Your task to perform on an android device: change notification settings in the gmail app Image 0: 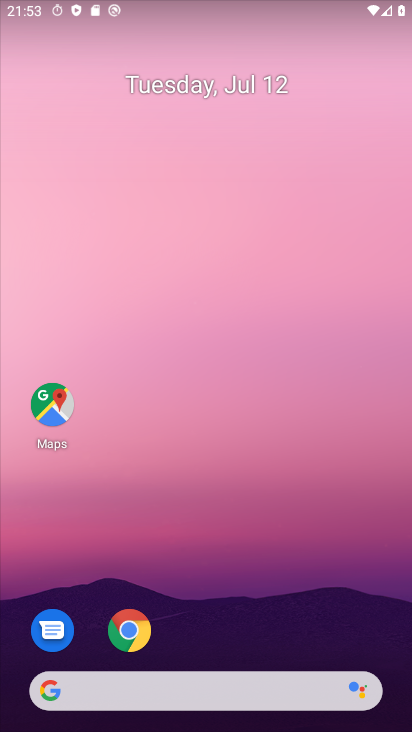
Step 0: drag from (246, 648) to (303, 20)
Your task to perform on an android device: change notification settings in the gmail app Image 1: 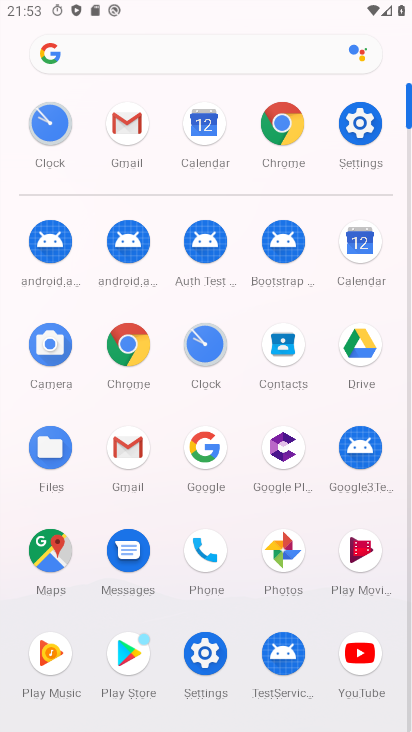
Step 1: click (122, 138)
Your task to perform on an android device: change notification settings in the gmail app Image 2: 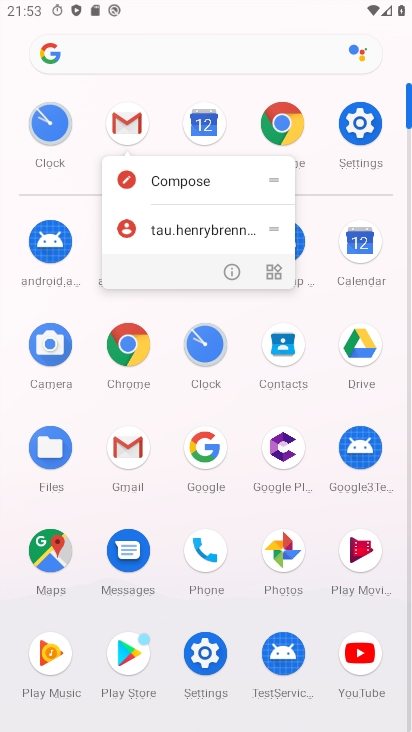
Step 2: click (229, 271)
Your task to perform on an android device: change notification settings in the gmail app Image 3: 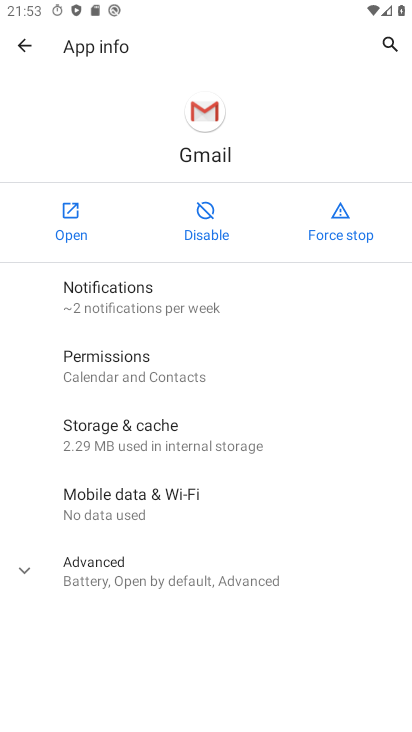
Step 3: click (146, 291)
Your task to perform on an android device: change notification settings in the gmail app Image 4: 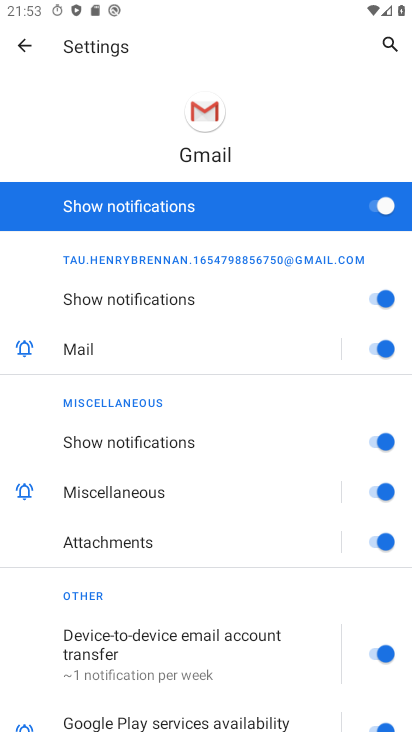
Step 4: click (387, 296)
Your task to perform on an android device: change notification settings in the gmail app Image 5: 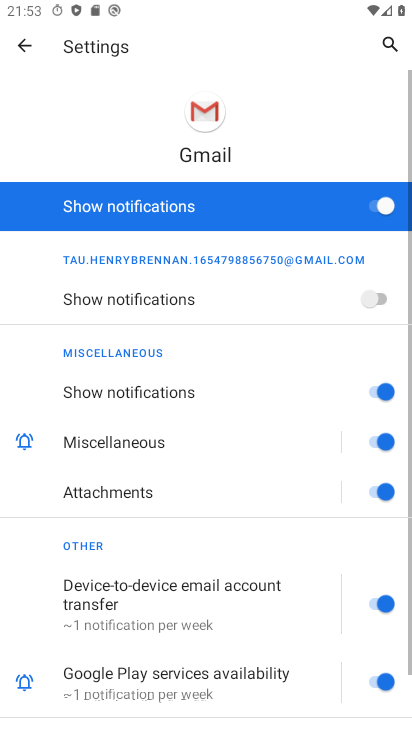
Step 5: task complete